Your task to perform on an android device: delete browsing data in the chrome app Image 0: 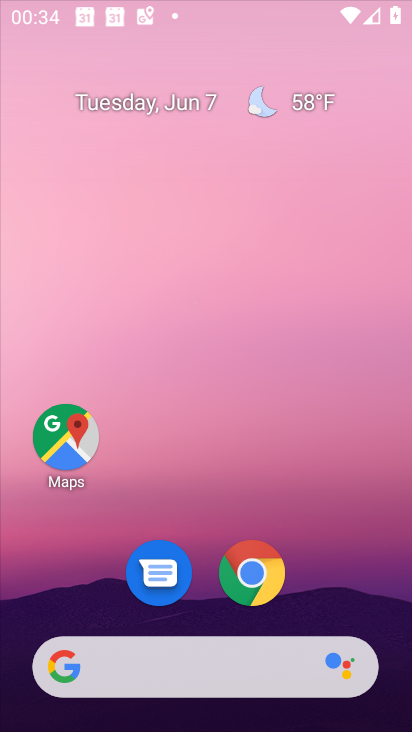
Step 0: press home button
Your task to perform on an android device: delete browsing data in the chrome app Image 1: 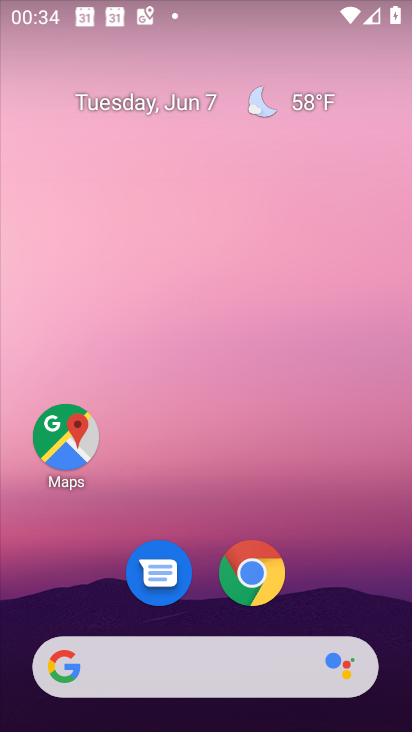
Step 1: click (276, 575)
Your task to perform on an android device: delete browsing data in the chrome app Image 2: 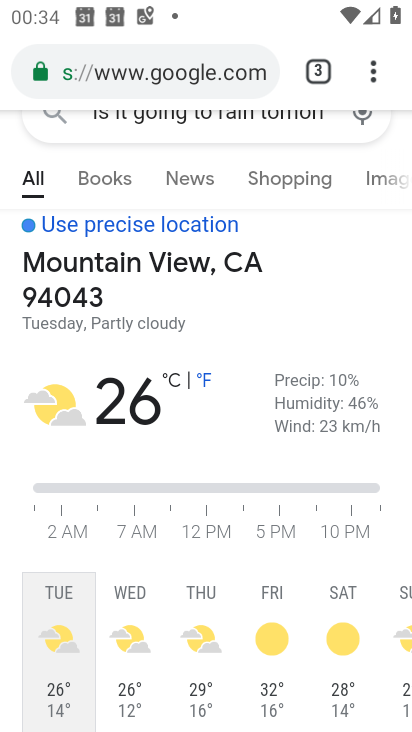
Step 2: drag from (370, 72) to (204, 591)
Your task to perform on an android device: delete browsing data in the chrome app Image 3: 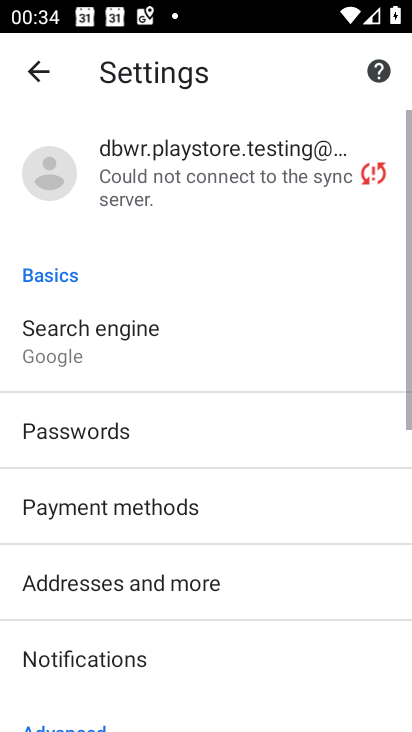
Step 3: drag from (298, 598) to (242, 217)
Your task to perform on an android device: delete browsing data in the chrome app Image 4: 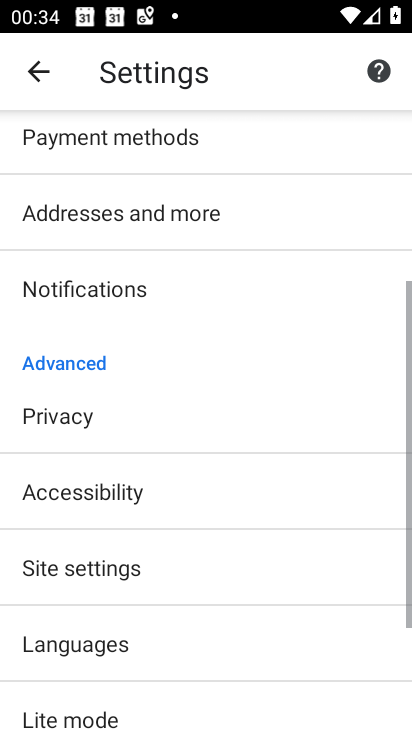
Step 4: drag from (298, 563) to (269, 265)
Your task to perform on an android device: delete browsing data in the chrome app Image 5: 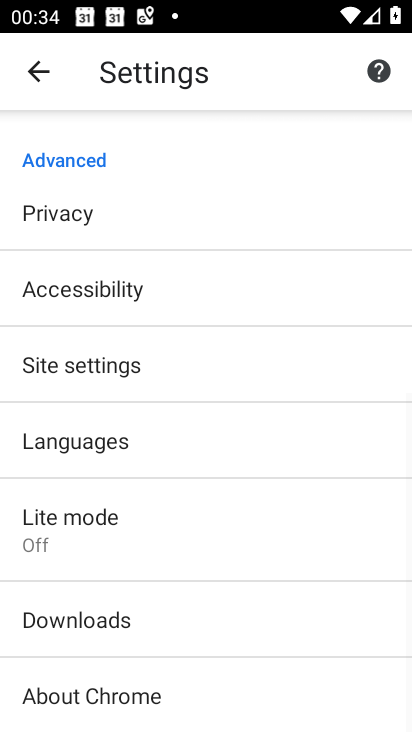
Step 5: click (142, 190)
Your task to perform on an android device: delete browsing data in the chrome app Image 6: 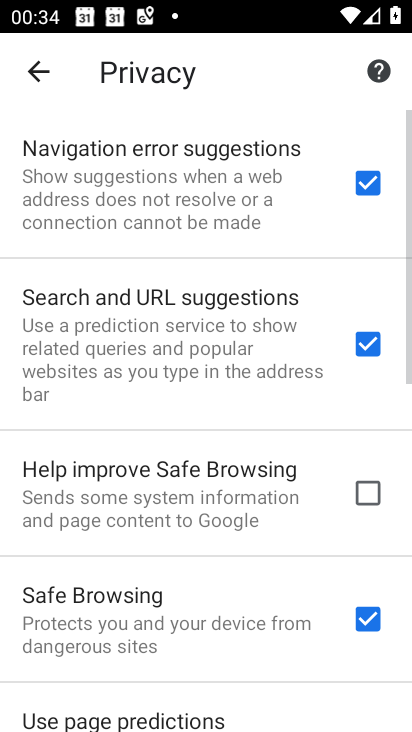
Step 6: drag from (267, 685) to (222, 38)
Your task to perform on an android device: delete browsing data in the chrome app Image 7: 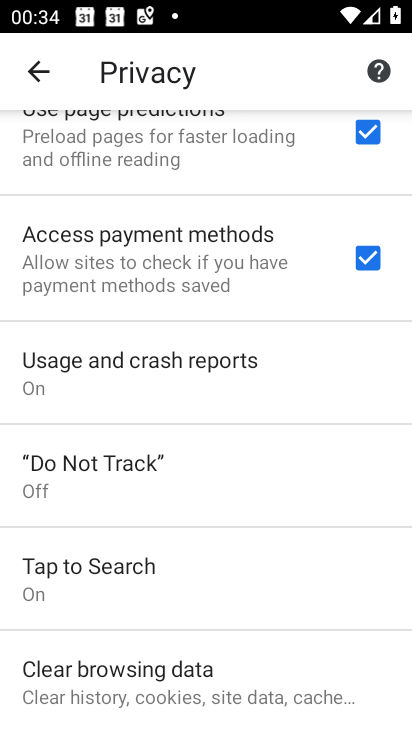
Step 7: click (211, 672)
Your task to perform on an android device: delete browsing data in the chrome app Image 8: 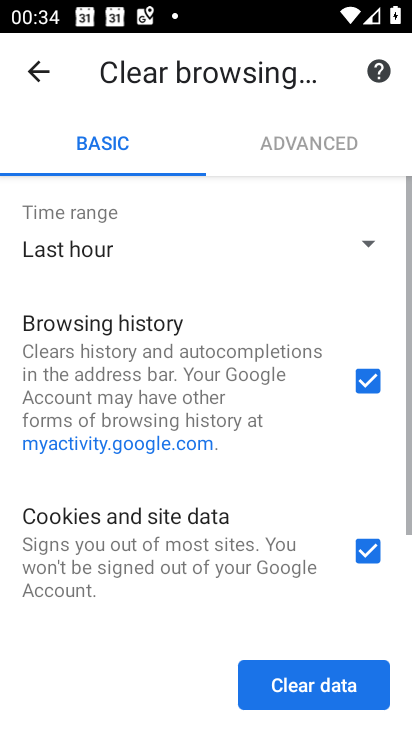
Step 8: click (283, 684)
Your task to perform on an android device: delete browsing data in the chrome app Image 9: 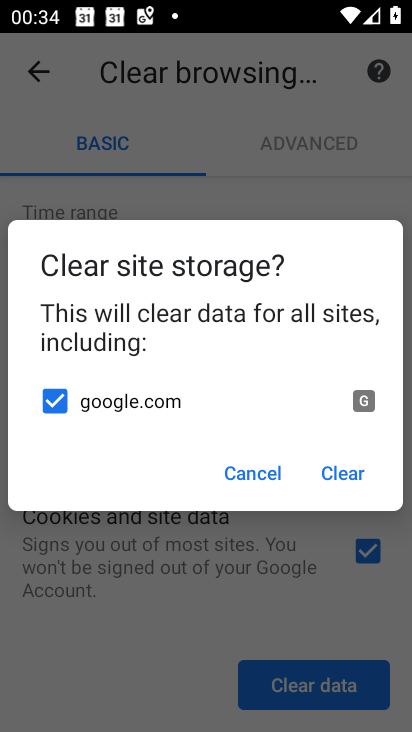
Step 9: click (331, 482)
Your task to perform on an android device: delete browsing data in the chrome app Image 10: 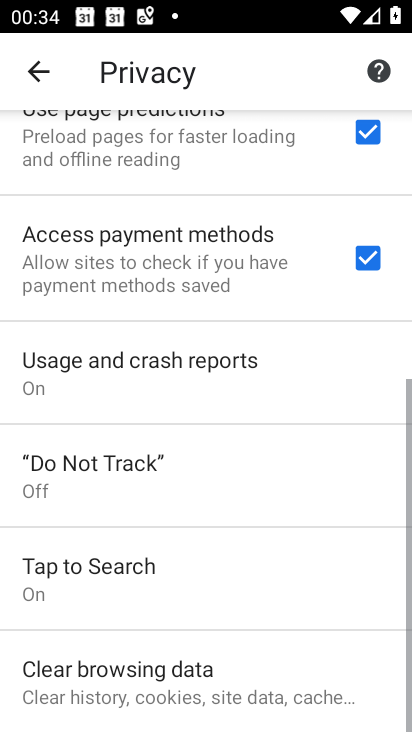
Step 10: task complete